Your task to perform on an android device: Search for Italian restaurants on Maps Image 0: 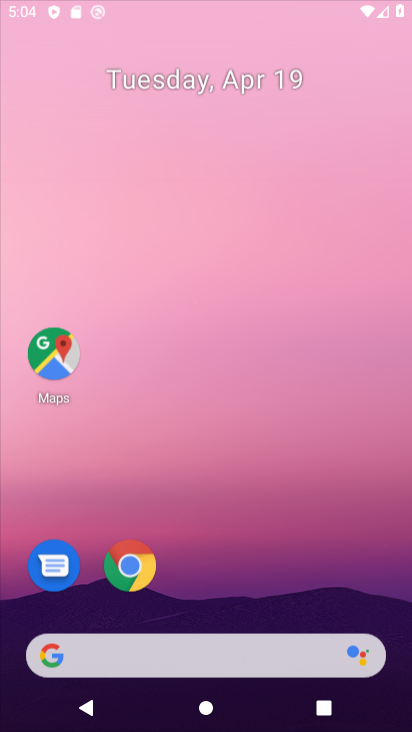
Step 0: click (265, 112)
Your task to perform on an android device: Search for Italian restaurants on Maps Image 1: 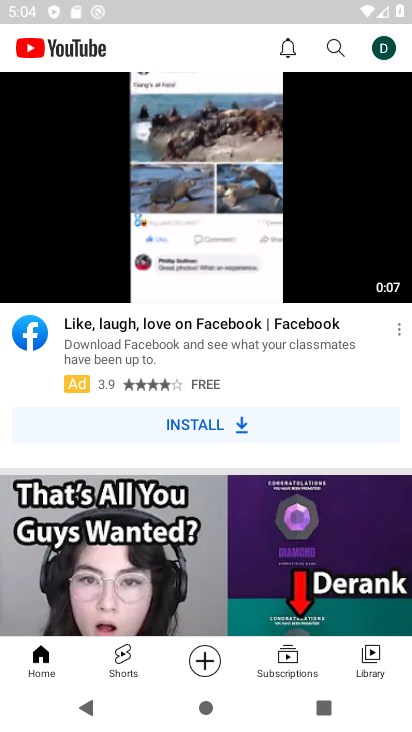
Step 1: press home button
Your task to perform on an android device: Search for Italian restaurants on Maps Image 2: 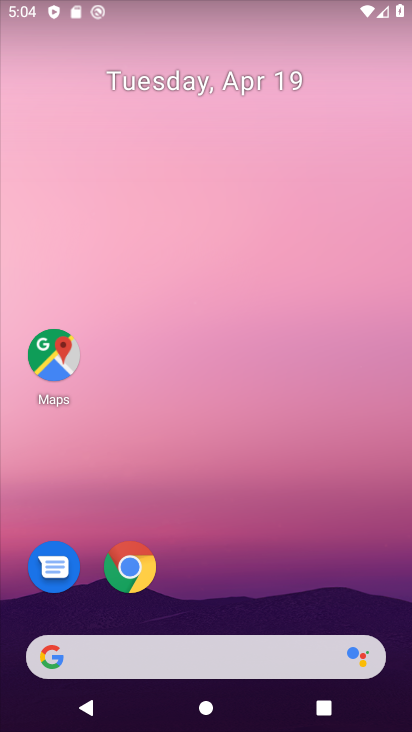
Step 2: drag from (273, 590) to (224, 716)
Your task to perform on an android device: Search for Italian restaurants on Maps Image 3: 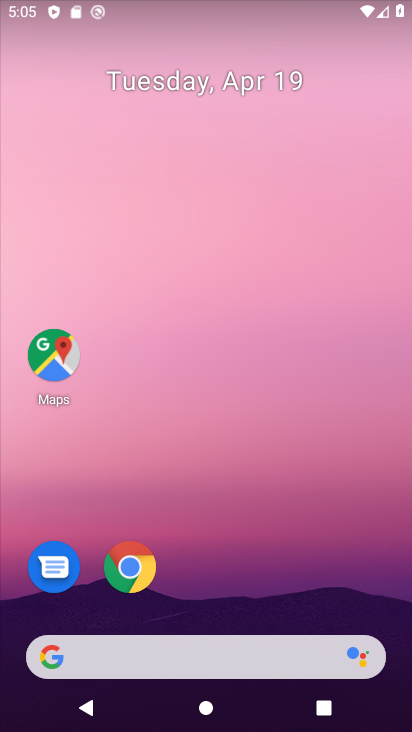
Step 3: click (47, 349)
Your task to perform on an android device: Search for Italian restaurants on Maps Image 4: 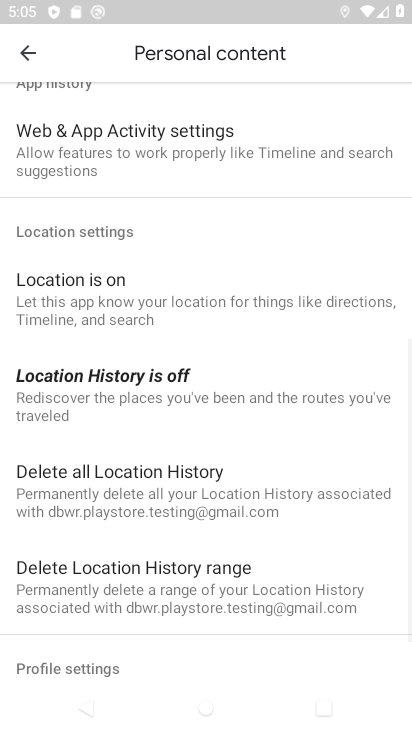
Step 4: click (23, 46)
Your task to perform on an android device: Search for Italian restaurants on Maps Image 5: 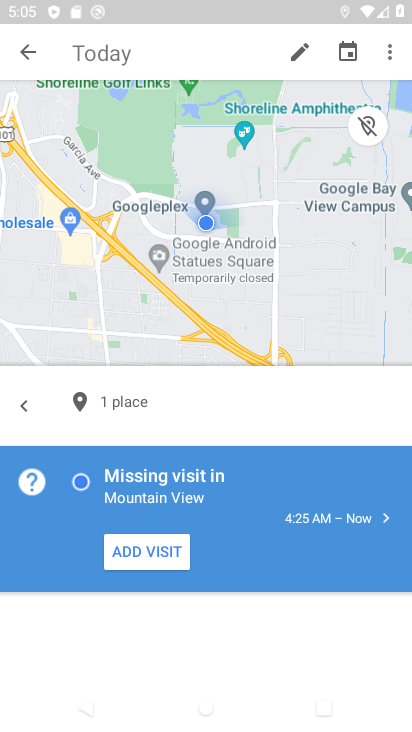
Step 5: click (23, 46)
Your task to perform on an android device: Search for Italian restaurants on Maps Image 6: 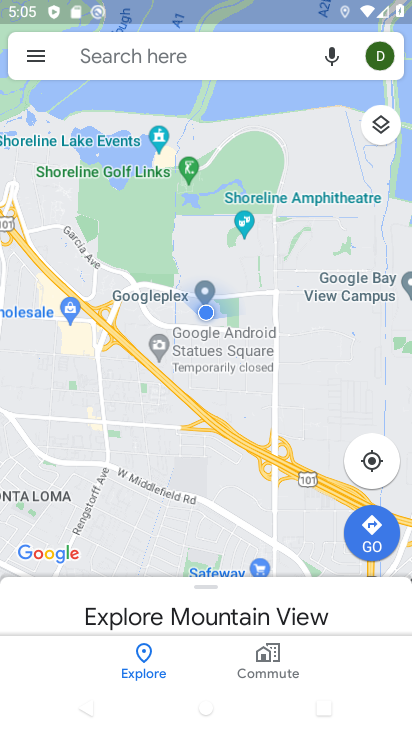
Step 6: click (163, 49)
Your task to perform on an android device: Search for Italian restaurants on Maps Image 7: 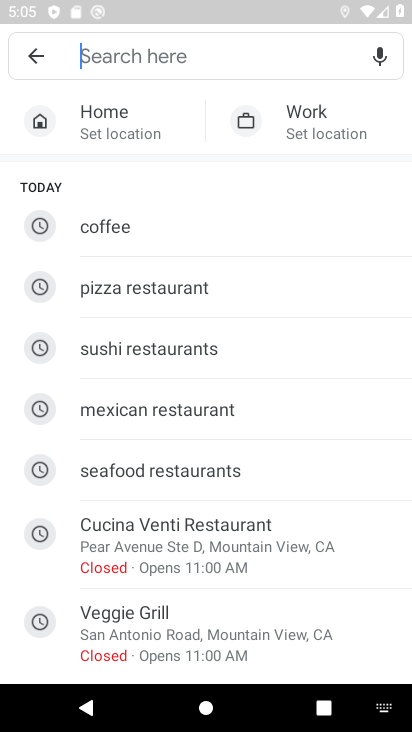
Step 7: type " Italian restaurants "
Your task to perform on an android device: Search for Italian restaurants on Maps Image 8: 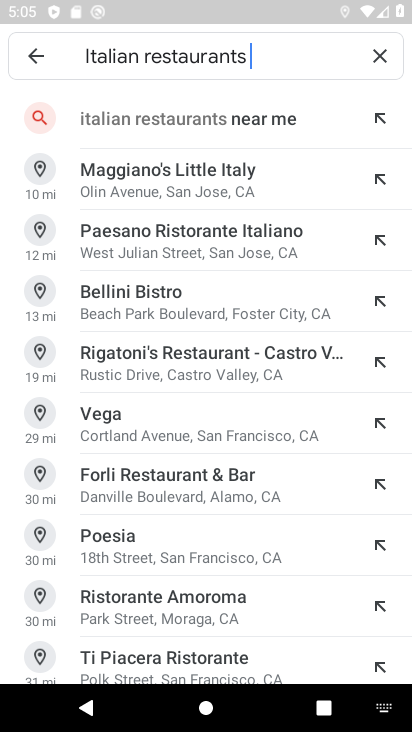
Step 8: click (132, 129)
Your task to perform on an android device: Search for Italian restaurants on Maps Image 9: 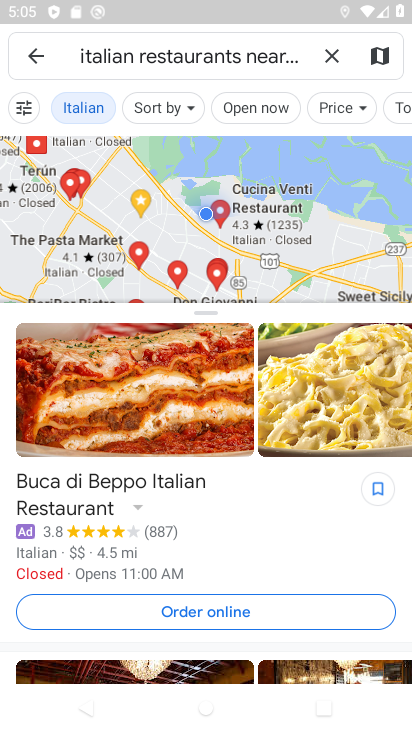
Step 9: task complete